Your task to perform on an android device: Open the phone app and click the voicemail tab. Image 0: 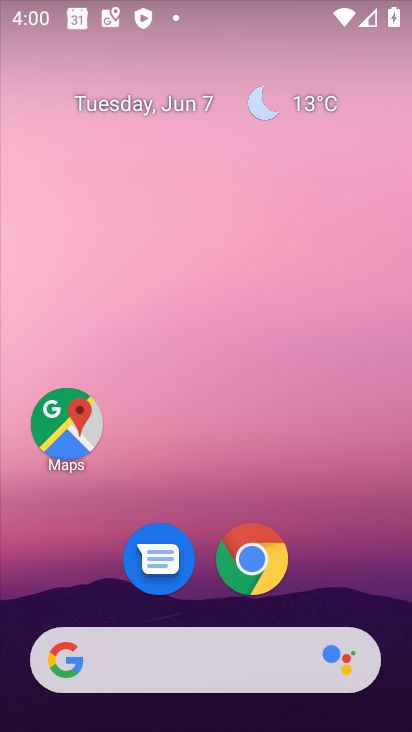
Step 0: drag from (339, 580) to (179, 73)
Your task to perform on an android device: Open the phone app and click the voicemail tab. Image 1: 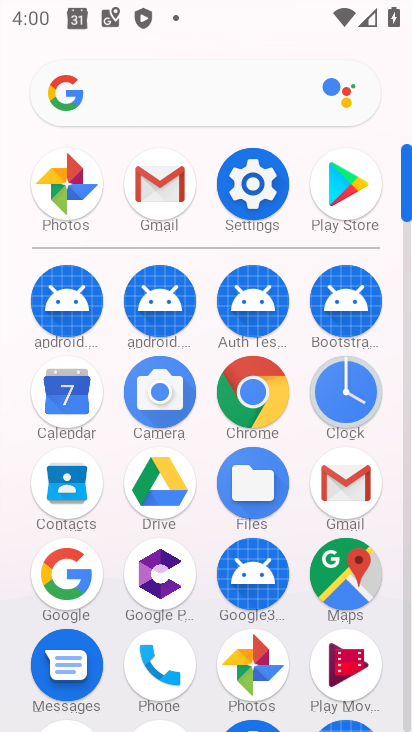
Step 1: drag from (302, 455) to (320, 266)
Your task to perform on an android device: Open the phone app and click the voicemail tab. Image 2: 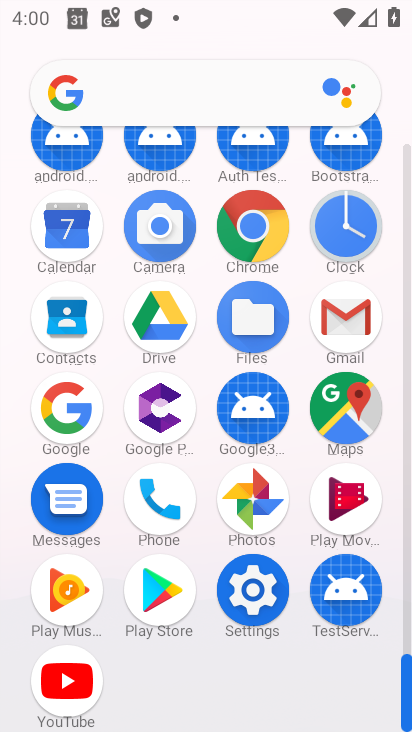
Step 2: click (153, 504)
Your task to perform on an android device: Open the phone app and click the voicemail tab. Image 3: 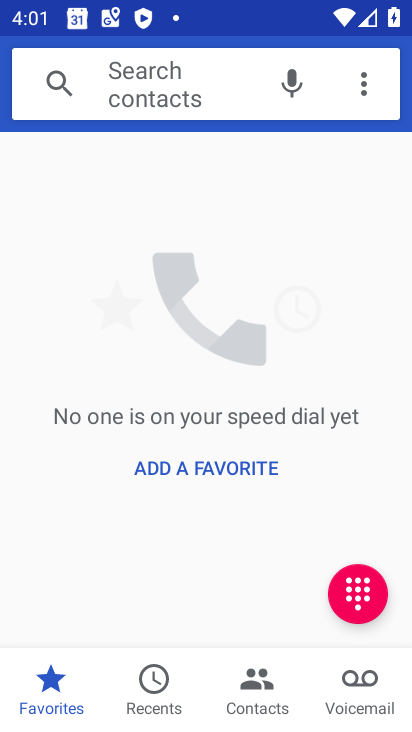
Step 3: click (352, 676)
Your task to perform on an android device: Open the phone app and click the voicemail tab. Image 4: 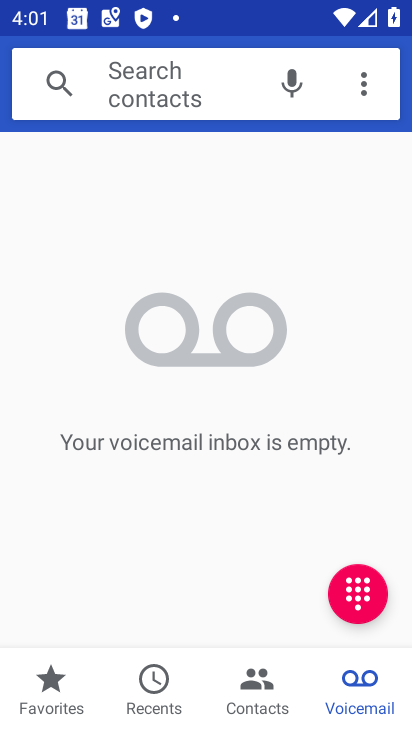
Step 4: task complete